Your task to perform on an android device: Show me recent news Image 0: 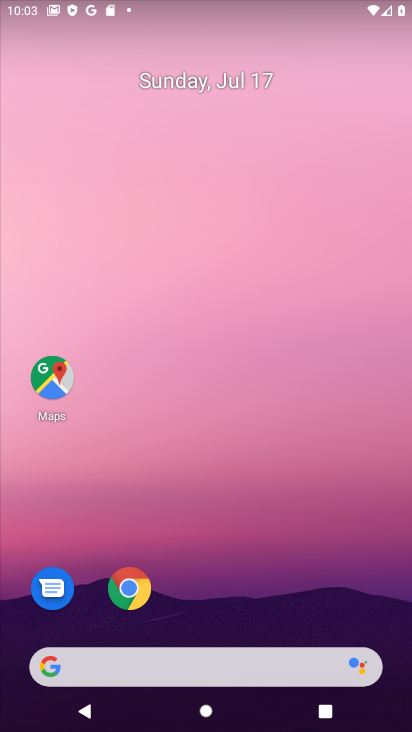
Step 0: click (125, 599)
Your task to perform on an android device: Show me recent news Image 1: 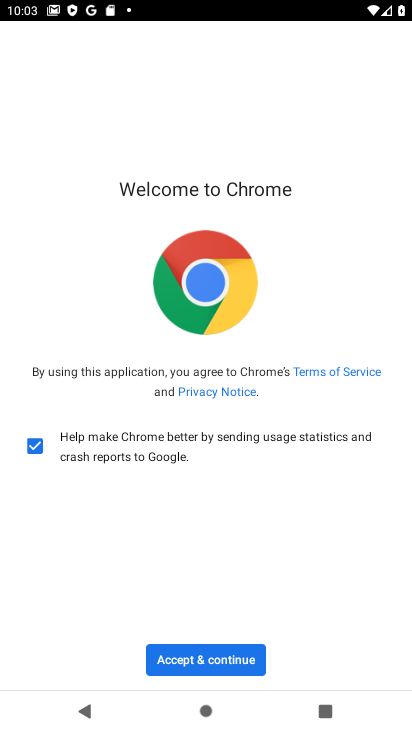
Step 1: click (207, 649)
Your task to perform on an android device: Show me recent news Image 2: 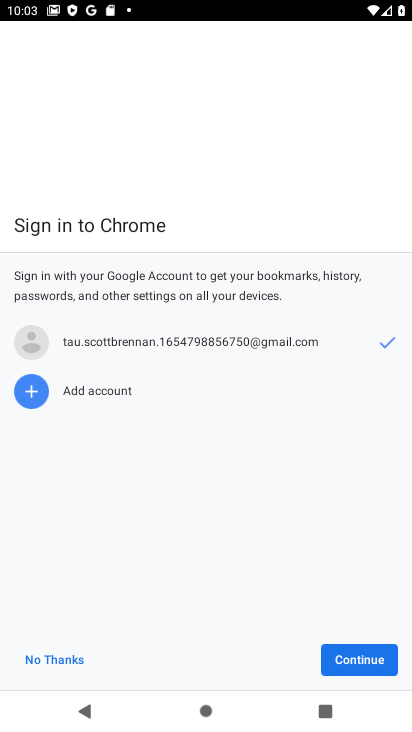
Step 2: click (338, 658)
Your task to perform on an android device: Show me recent news Image 3: 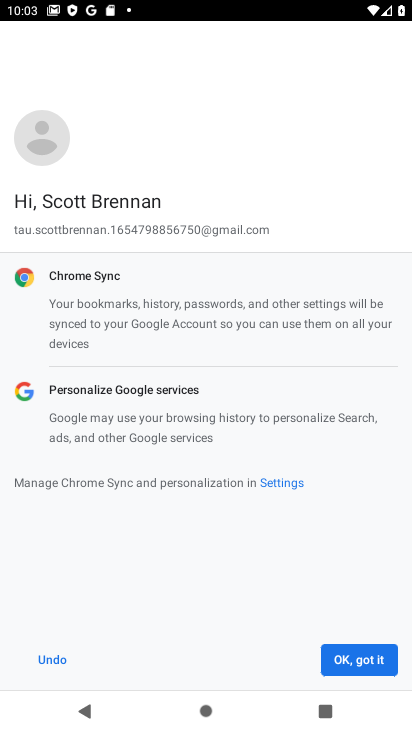
Step 3: click (338, 658)
Your task to perform on an android device: Show me recent news Image 4: 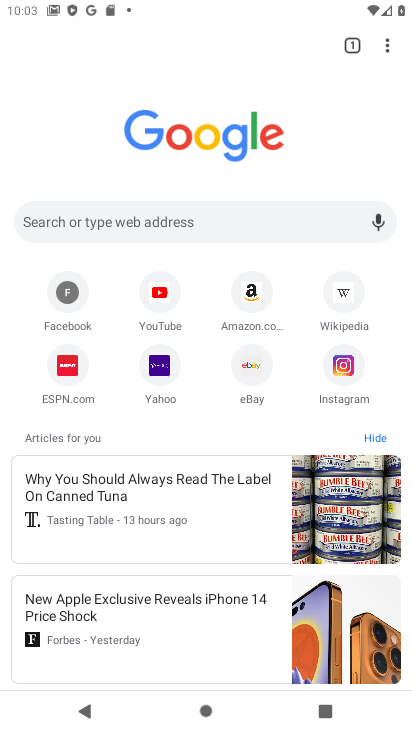
Step 4: click (324, 227)
Your task to perform on an android device: Show me recent news Image 5: 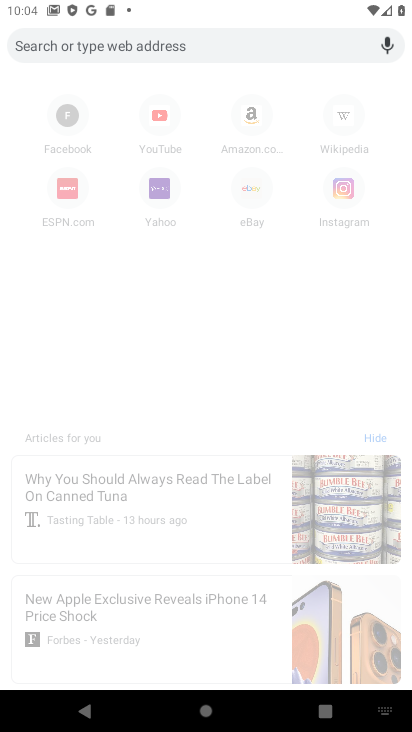
Step 5: type "recent news"
Your task to perform on an android device: Show me recent news Image 6: 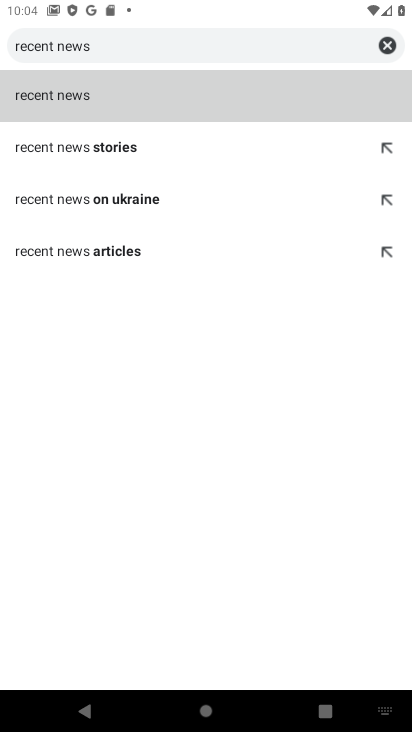
Step 6: click (172, 98)
Your task to perform on an android device: Show me recent news Image 7: 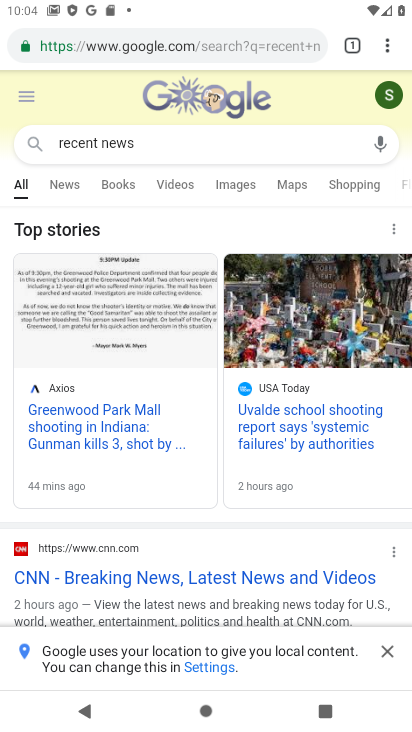
Step 7: task complete